Your task to perform on an android device: Go to sound settings Image 0: 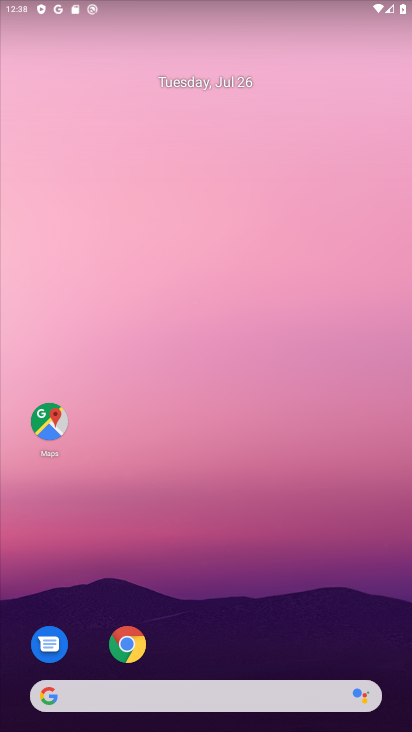
Step 0: drag from (213, 459) to (170, 170)
Your task to perform on an android device: Go to sound settings Image 1: 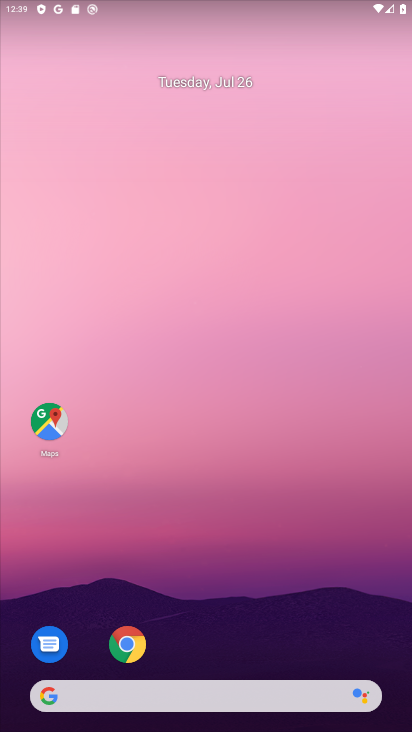
Step 1: drag from (220, 71) to (204, 28)
Your task to perform on an android device: Go to sound settings Image 2: 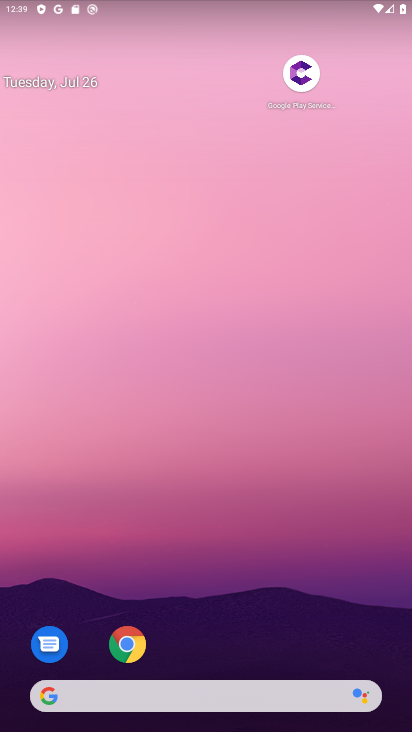
Step 2: drag from (204, 452) to (172, 9)
Your task to perform on an android device: Go to sound settings Image 3: 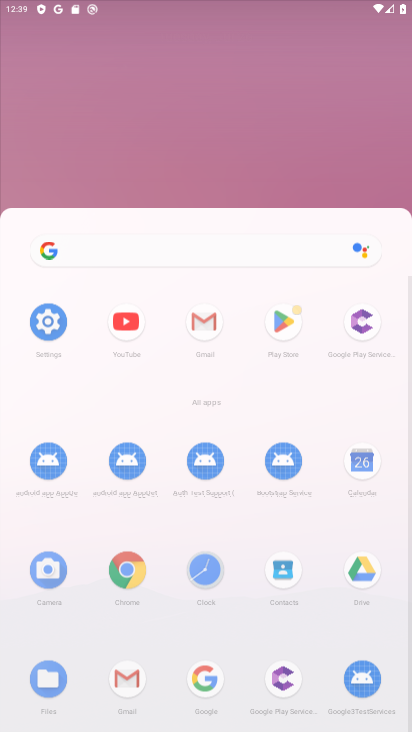
Step 3: drag from (186, 532) to (195, 17)
Your task to perform on an android device: Go to sound settings Image 4: 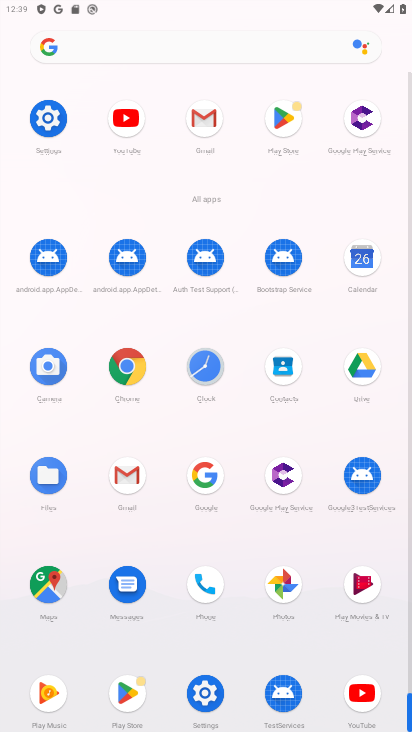
Step 4: drag from (201, 525) to (208, 6)
Your task to perform on an android device: Go to sound settings Image 5: 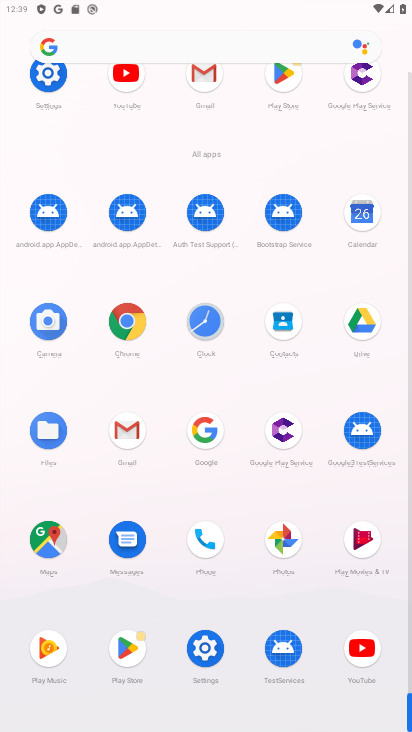
Step 5: drag from (208, 206) to (210, 39)
Your task to perform on an android device: Go to sound settings Image 6: 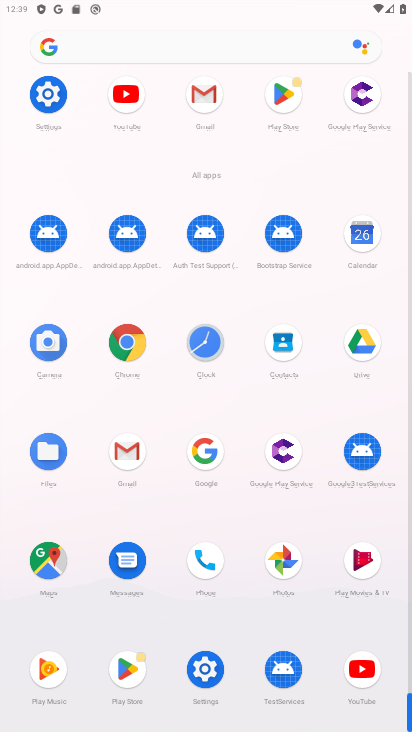
Step 6: click (210, 669)
Your task to perform on an android device: Go to sound settings Image 7: 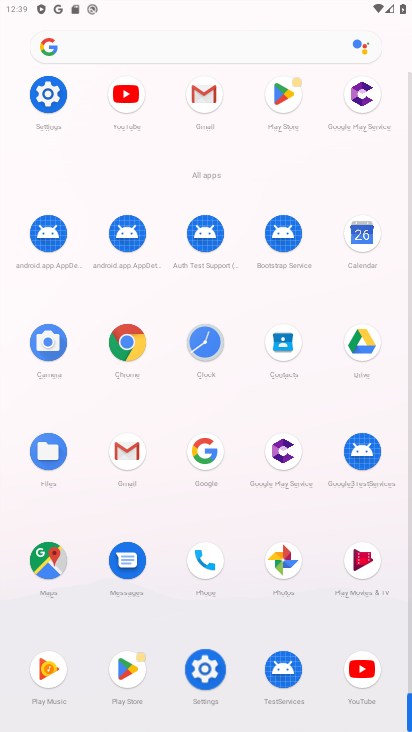
Step 7: click (207, 671)
Your task to perform on an android device: Go to sound settings Image 8: 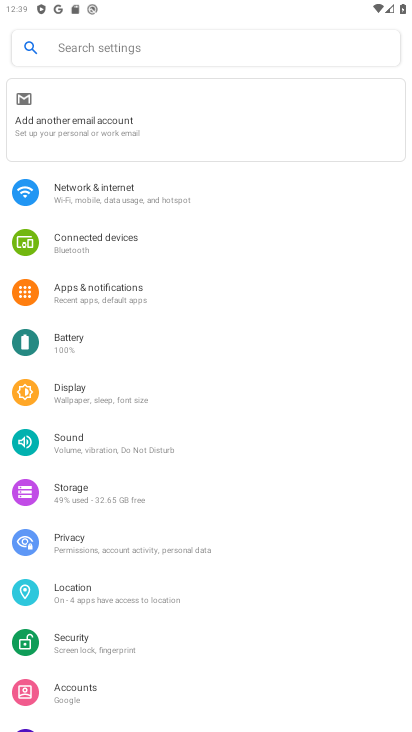
Step 8: click (204, 671)
Your task to perform on an android device: Go to sound settings Image 9: 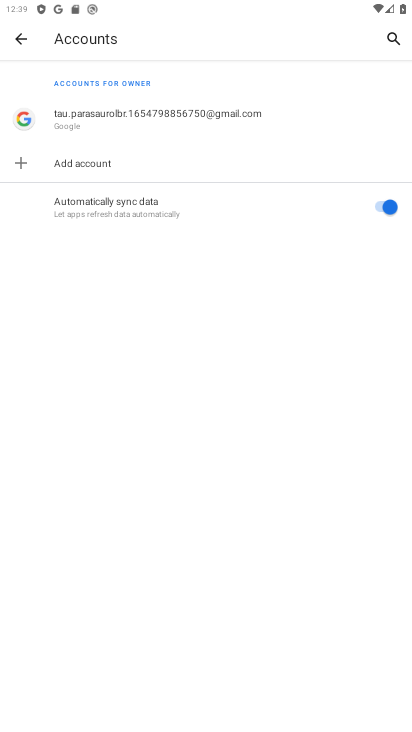
Step 9: click (16, 32)
Your task to perform on an android device: Go to sound settings Image 10: 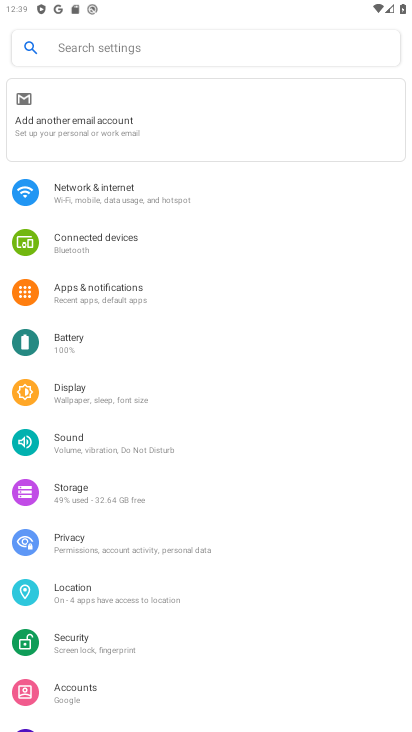
Step 10: click (86, 443)
Your task to perform on an android device: Go to sound settings Image 11: 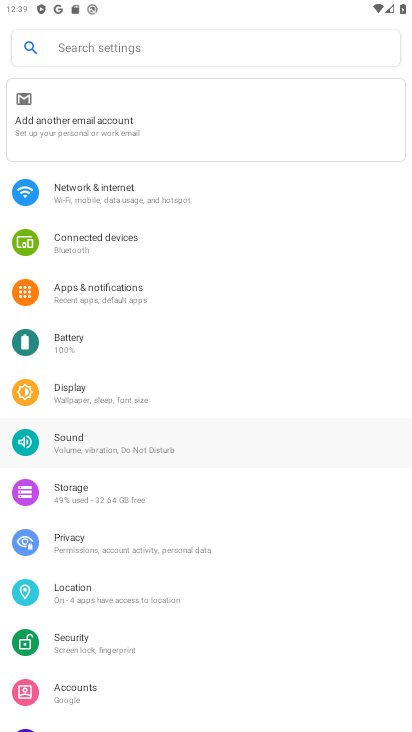
Step 11: click (86, 440)
Your task to perform on an android device: Go to sound settings Image 12: 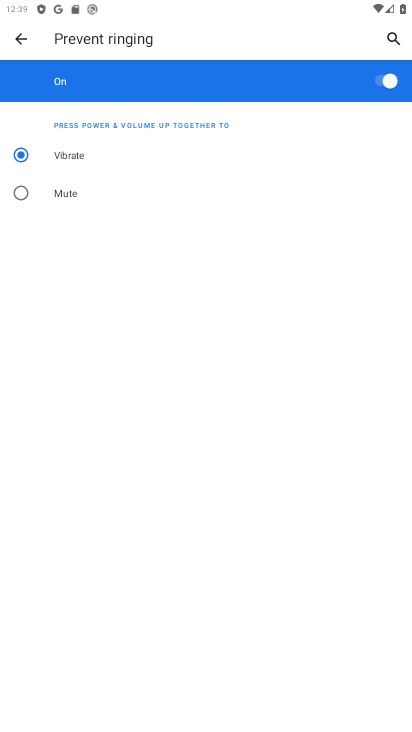
Step 12: click (24, 41)
Your task to perform on an android device: Go to sound settings Image 13: 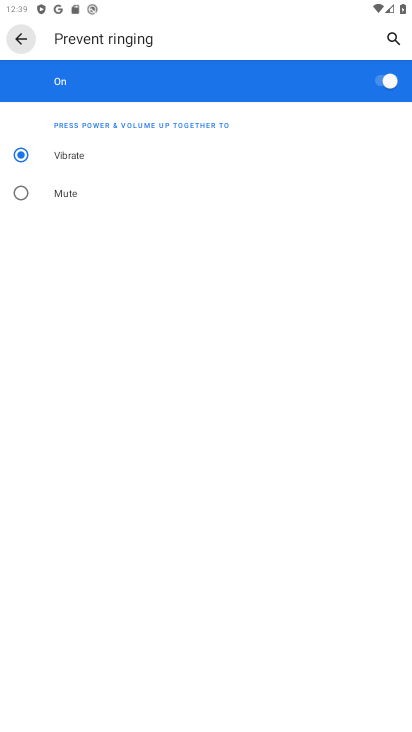
Step 13: click (26, 43)
Your task to perform on an android device: Go to sound settings Image 14: 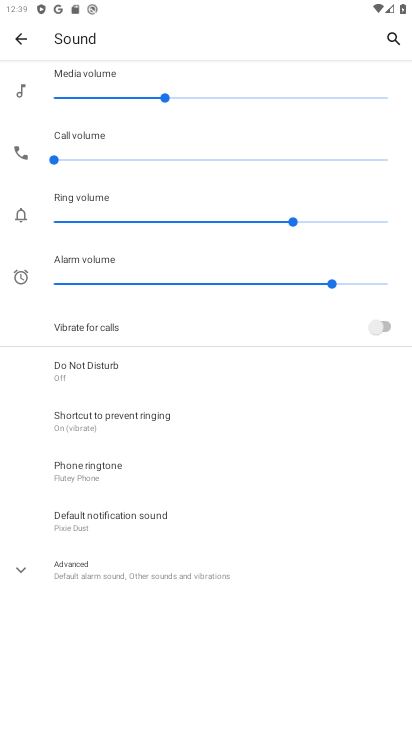
Step 14: task complete